Your task to perform on an android device: change notifications settings Image 0: 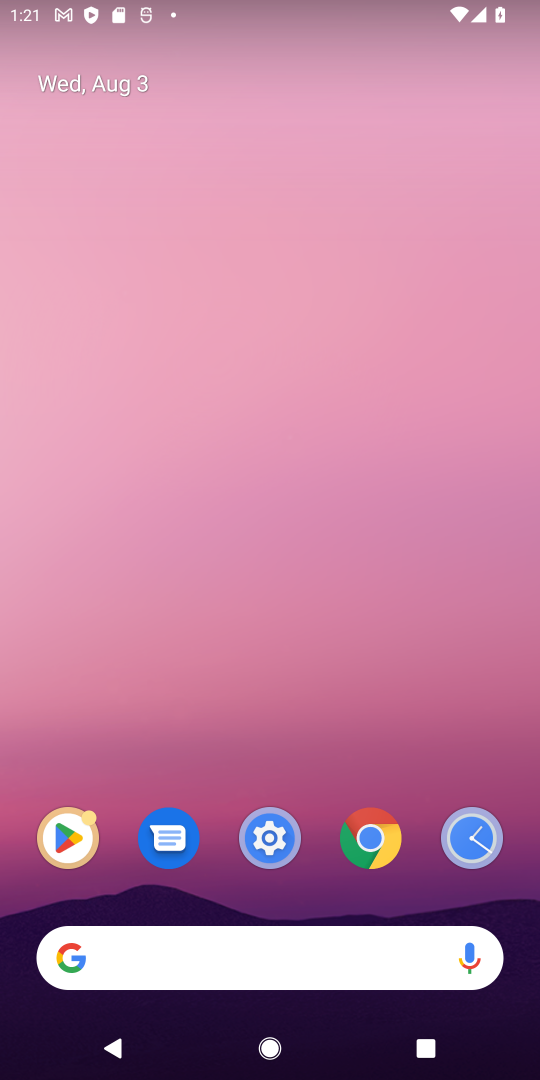
Step 0: click (260, 855)
Your task to perform on an android device: change notifications settings Image 1: 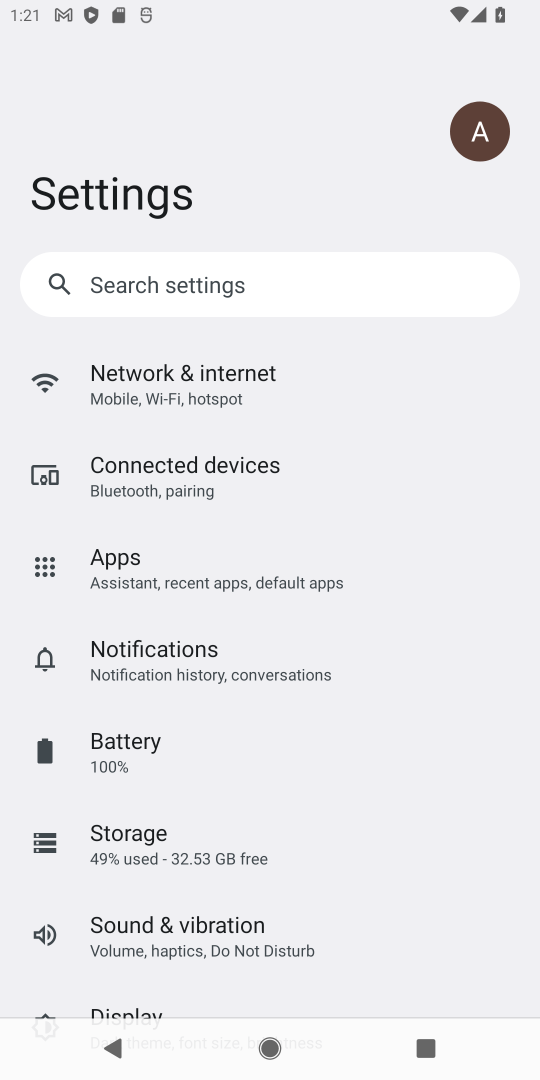
Step 1: click (205, 653)
Your task to perform on an android device: change notifications settings Image 2: 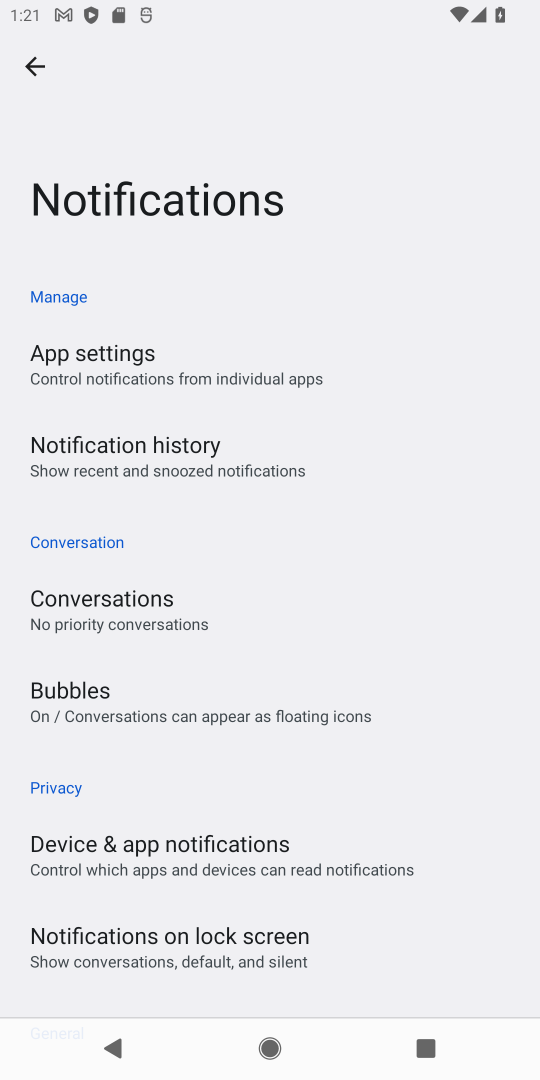
Step 2: task complete